Your task to perform on an android device: Open Google Maps Image 0: 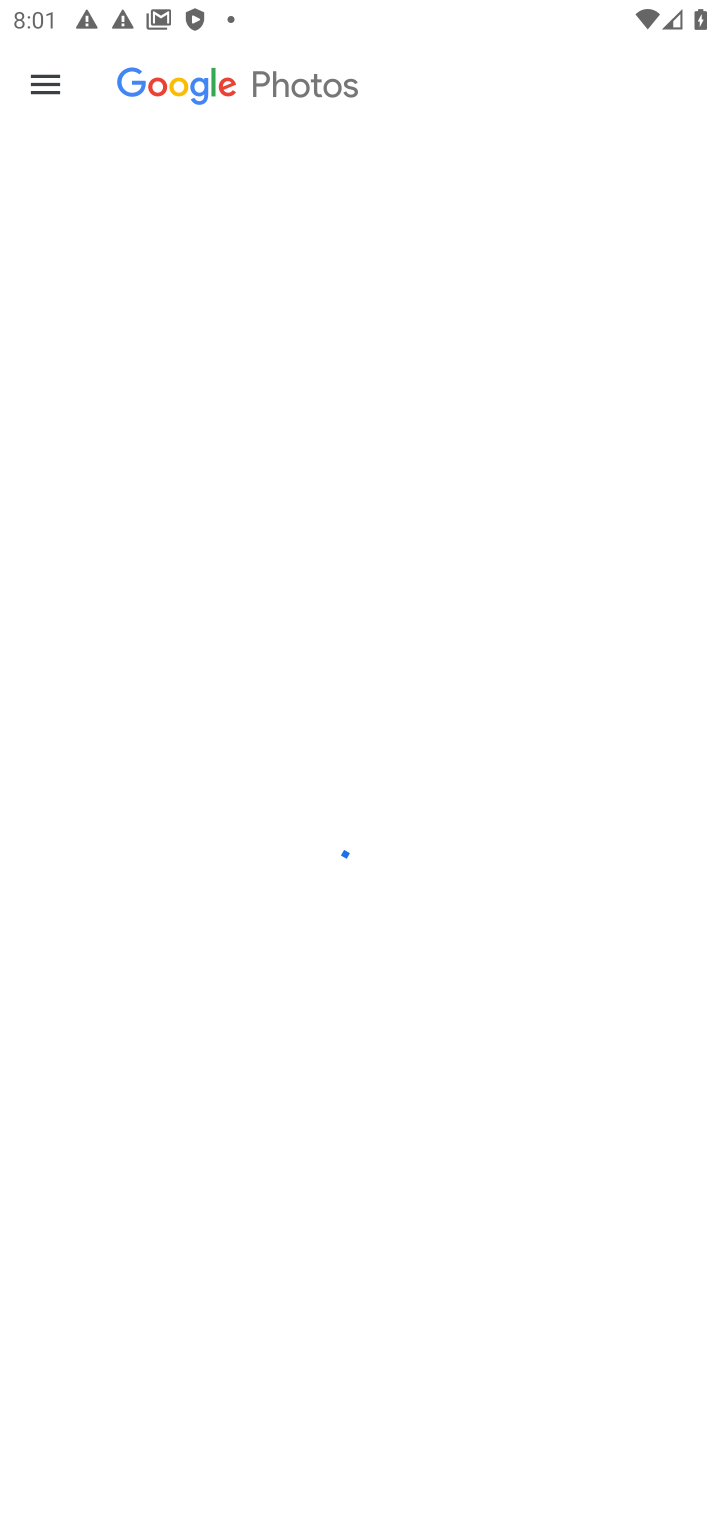
Step 0: press home button
Your task to perform on an android device: Open Google Maps Image 1: 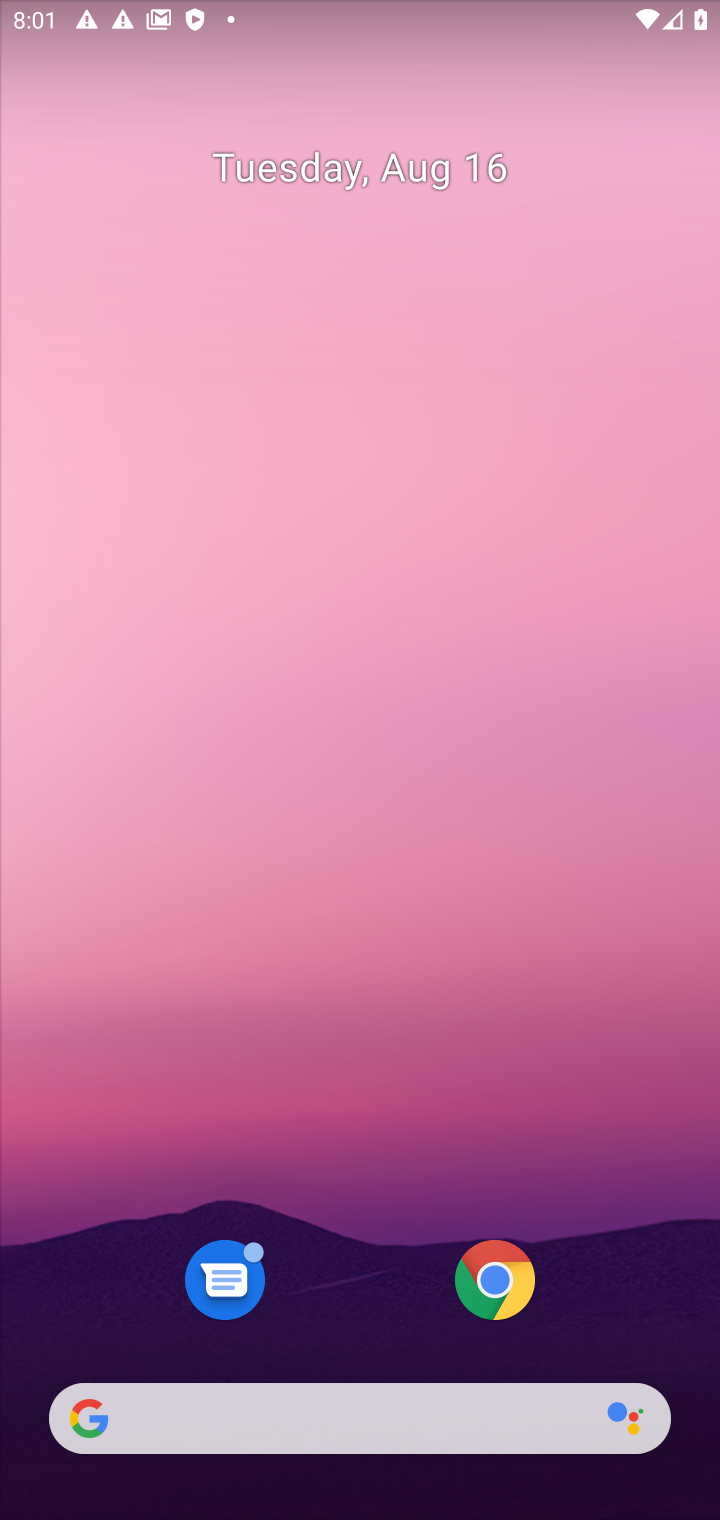
Step 1: drag from (354, 1254) to (392, 813)
Your task to perform on an android device: Open Google Maps Image 2: 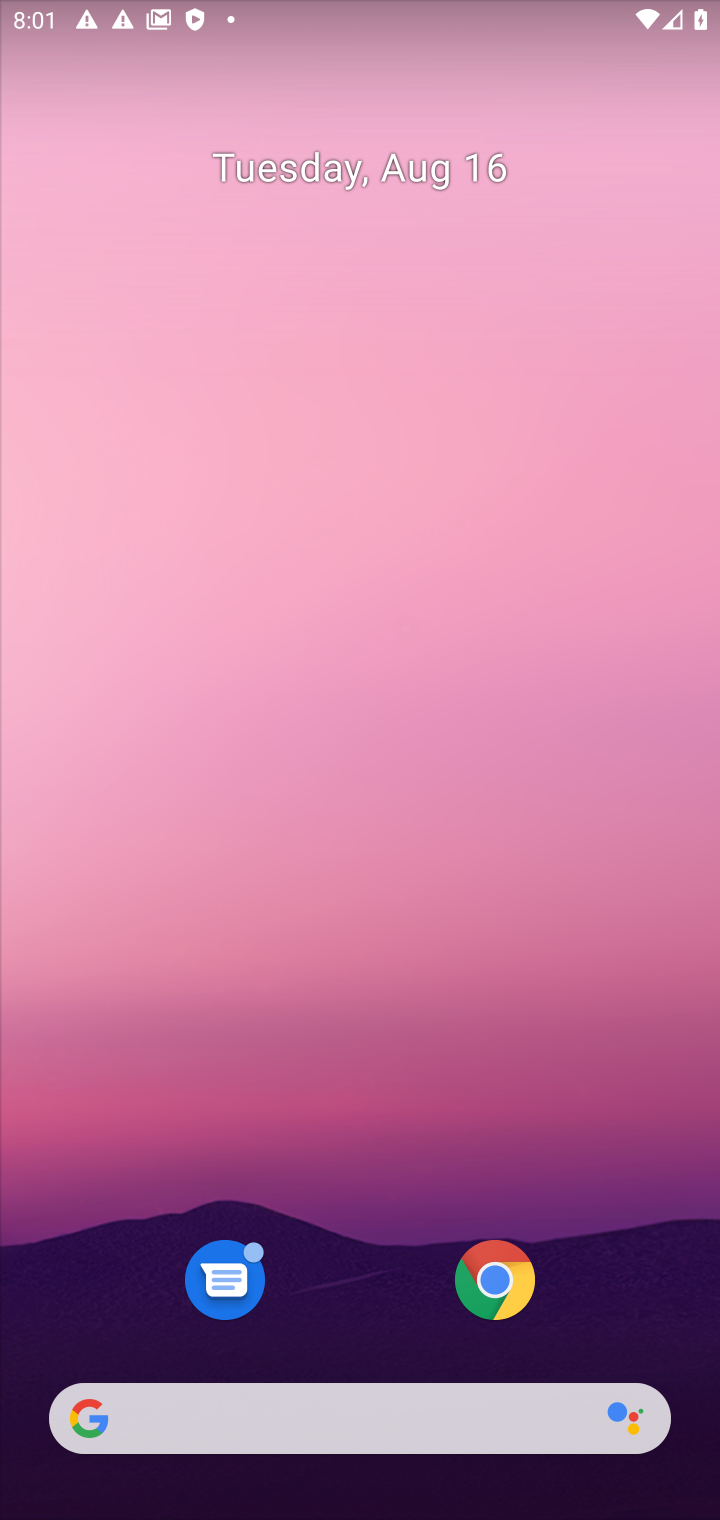
Step 2: drag from (439, 1361) to (473, 961)
Your task to perform on an android device: Open Google Maps Image 3: 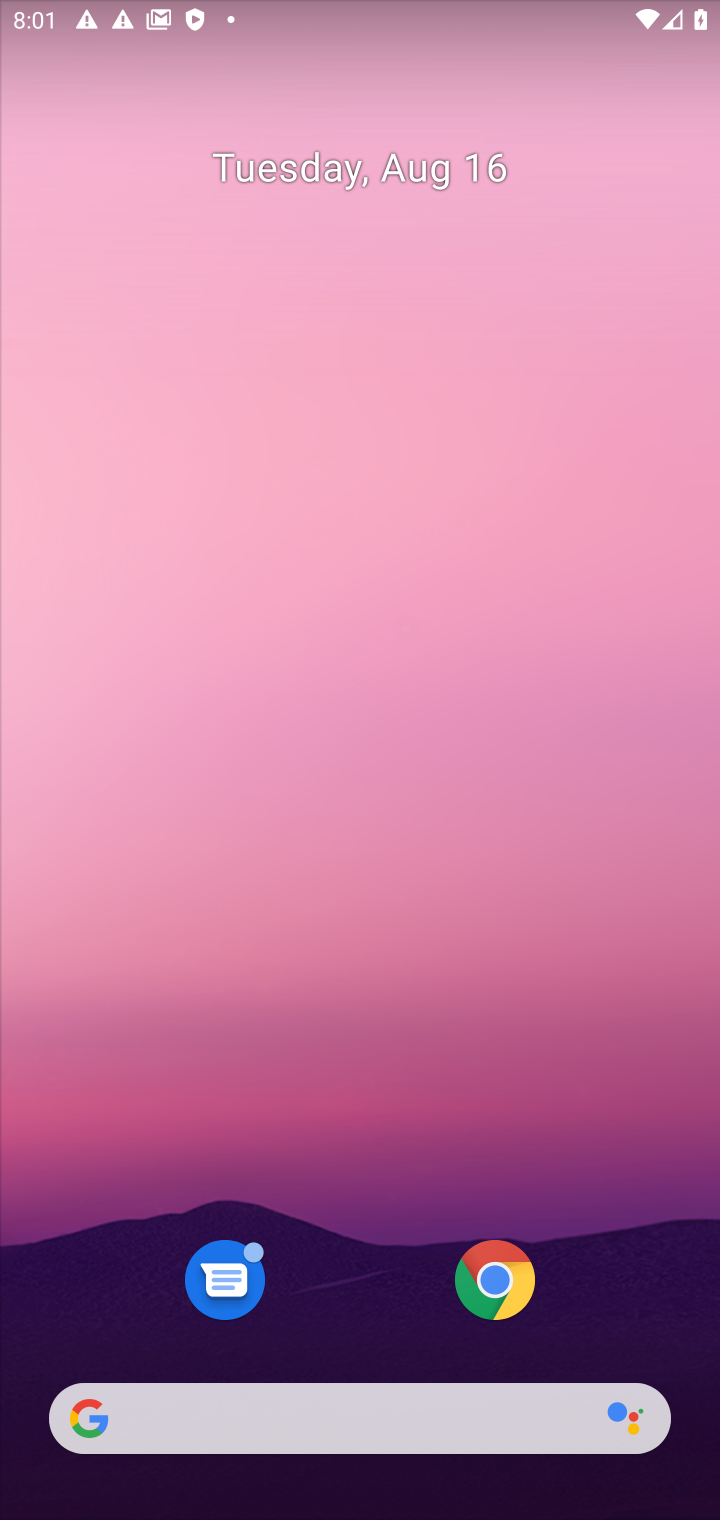
Step 3: drag from (327, 968) to (358, 469)
Your task to perform on an android device: Open Google Maps Image 4: 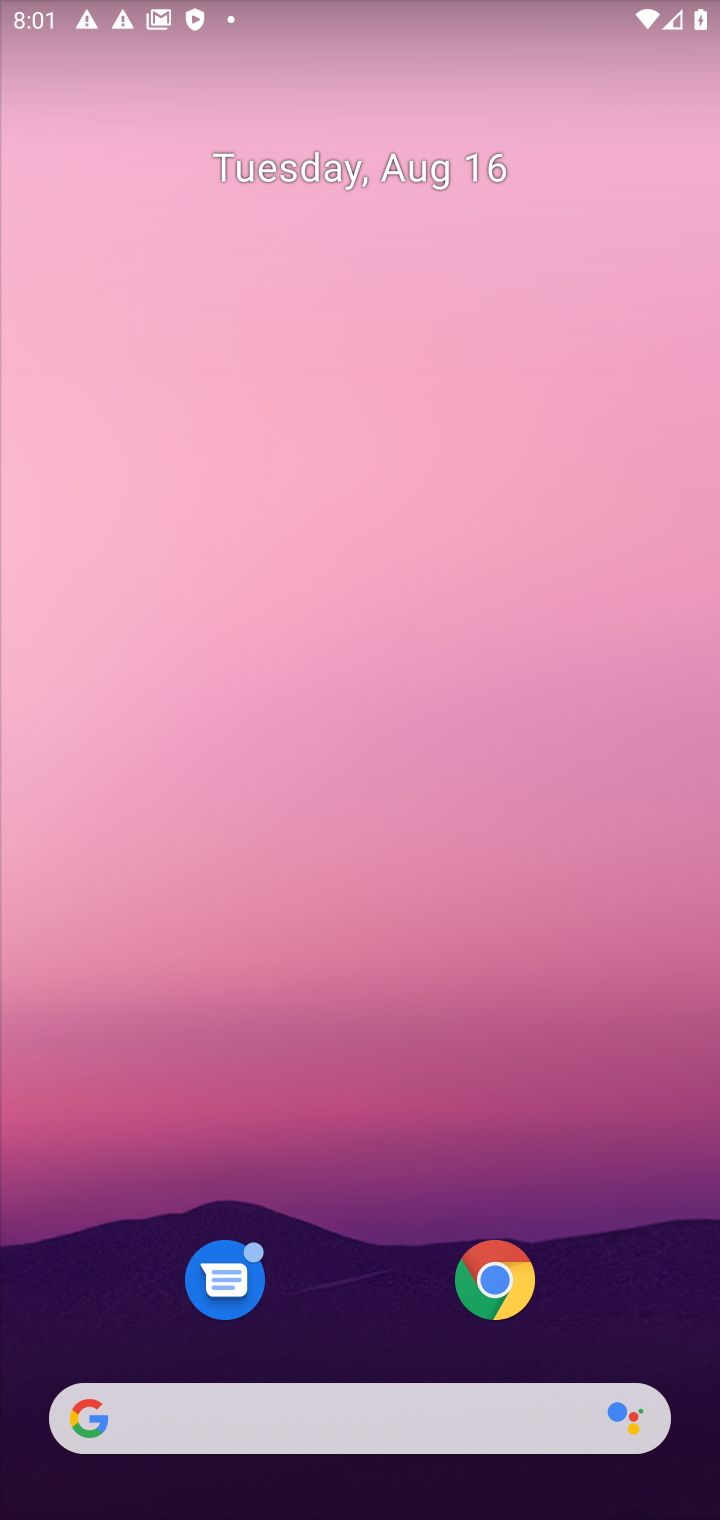
Step 4: drag from (361, 1326) to (393, 0)
Your task to perform on an android device: Open Google Maps Image 5: 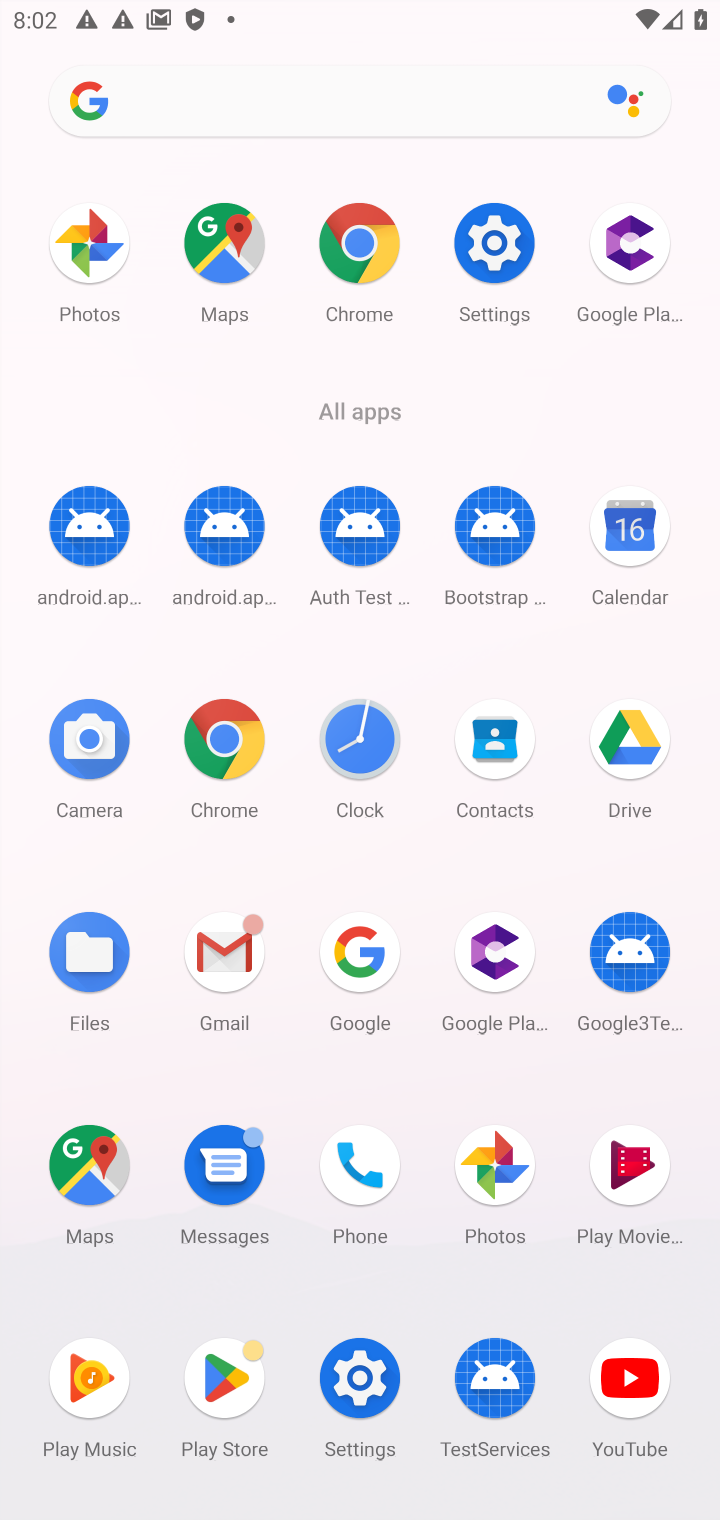
Step 5: click (119, 1188)
Your task to perform on an android device: Open Google Maps Image 6: 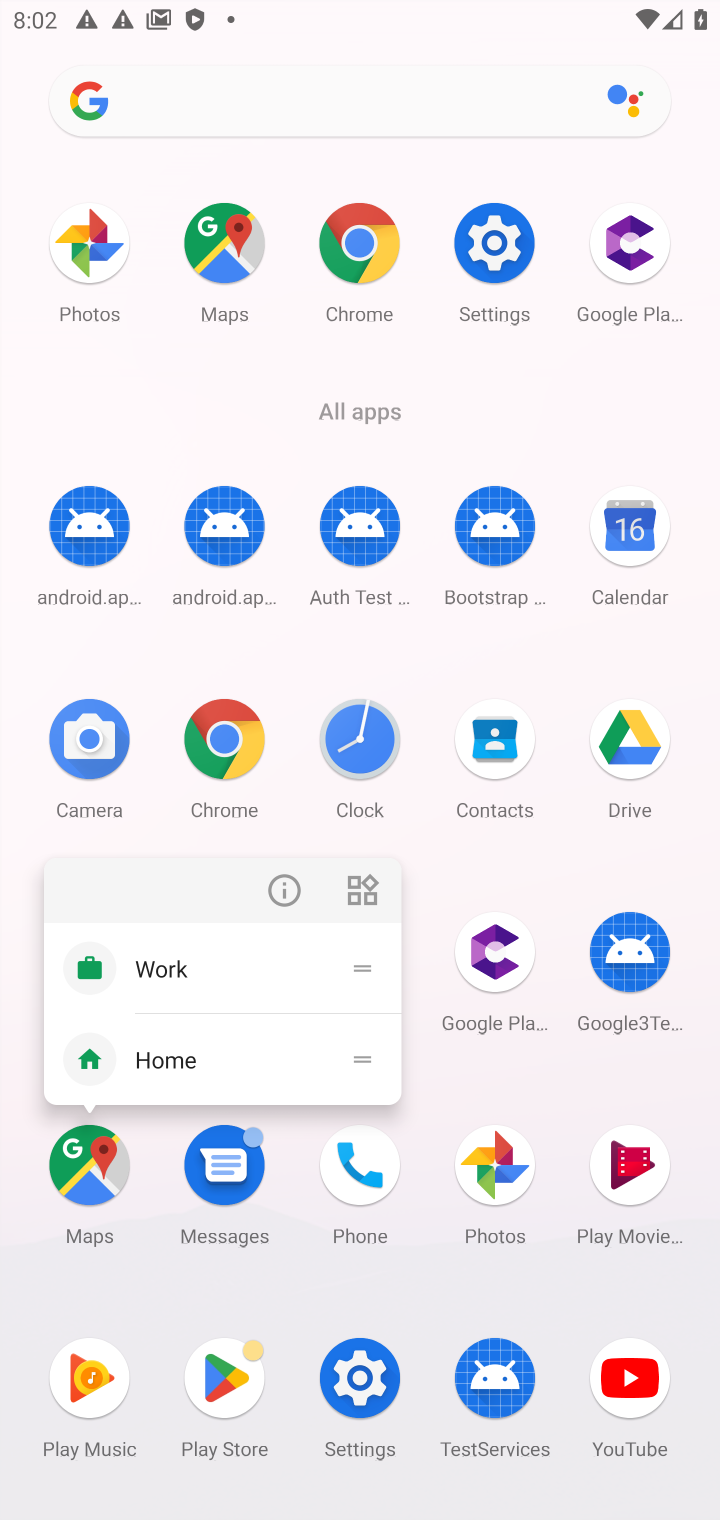
Step 6: click (91, 1185)
Your task to perform on an android device: Open Google Maps Image 7: 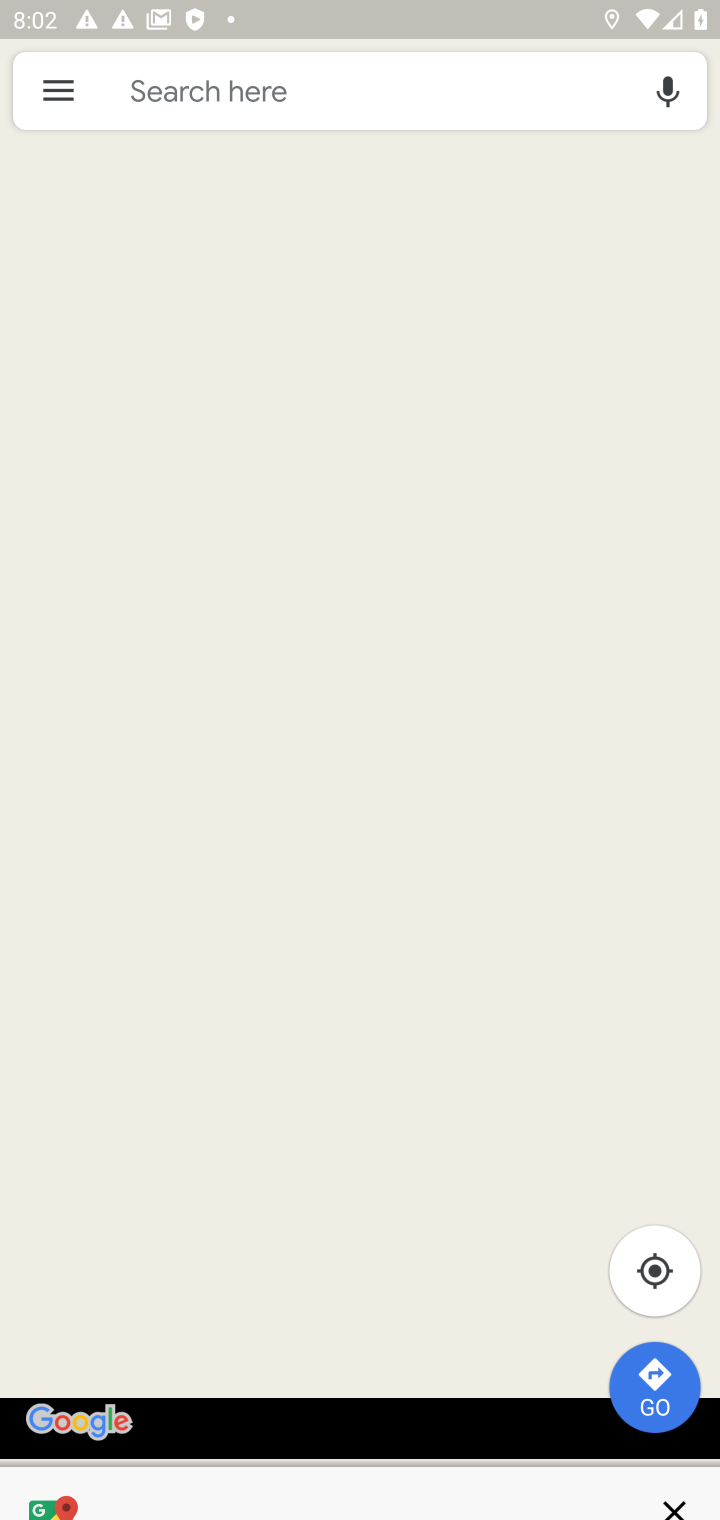
Step 7: task complete